Your task to perform on an android device: Show me productivity apps on the Play Store Image 0: 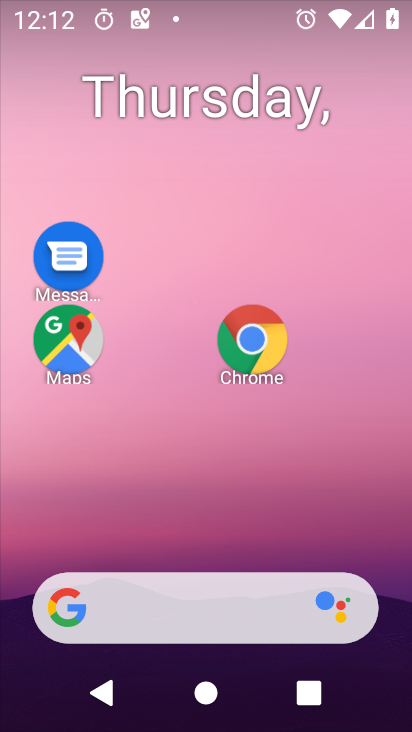
Step 0: drag from (202, 516) to (205, 55)
Your task to perform on an android device: Show me productivity apps on the Play Store Image 1: 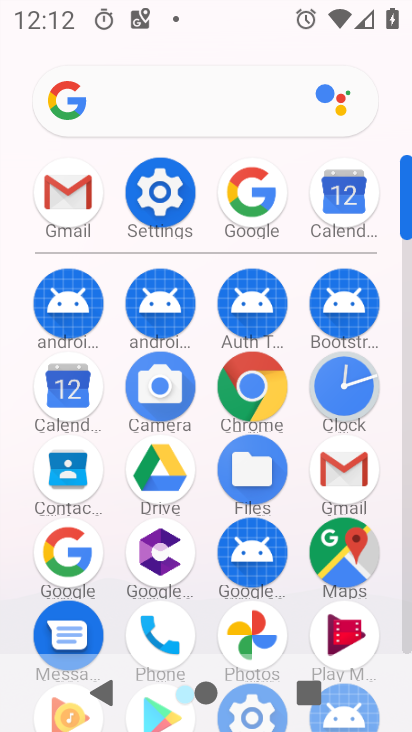
Step 1: drag from (131, 498) to (117, 287)
Your task to perform on an android device: Show me productivity apps on the Play Store Image 2: 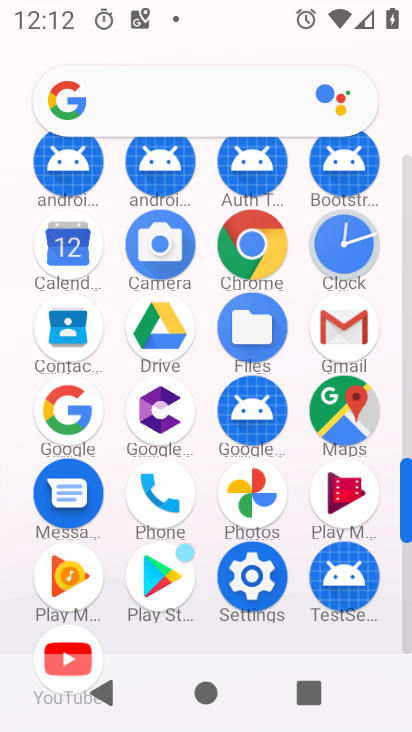
Step 2: click (154, 581)
Your task to perform on an android device: Show me productivity apps on the Play Store Image 3: 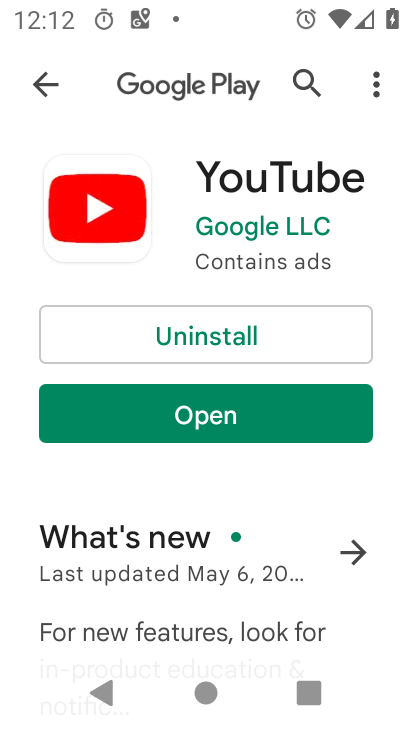
Step 3: press back button
Your task to perform on an android device: Show me productivity apps on the Play Store Image 4: 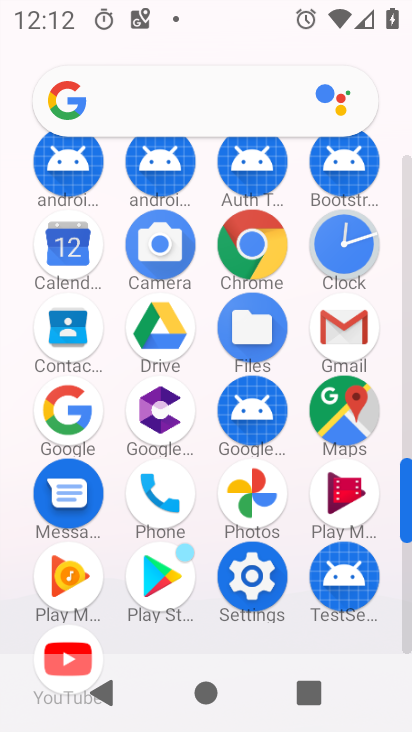
Step 4: click (174, 567)
Your task to perform on an android device: Show me productivity apps on the Play Store Image 5: 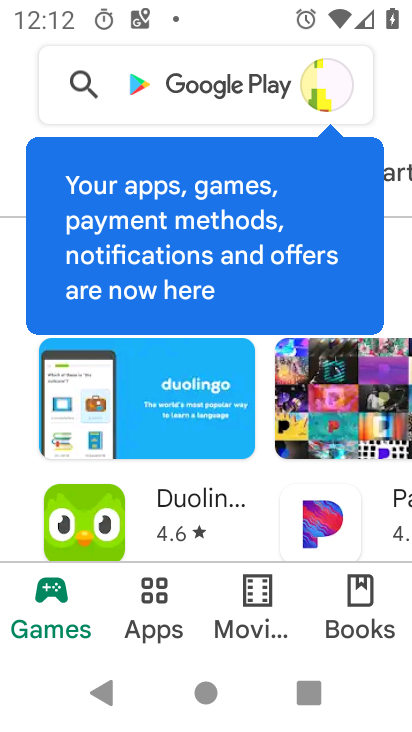
Step 5: click (169, 607)
Your task to perform on an android device: Show me productivity apps on the Play Store Image 6: 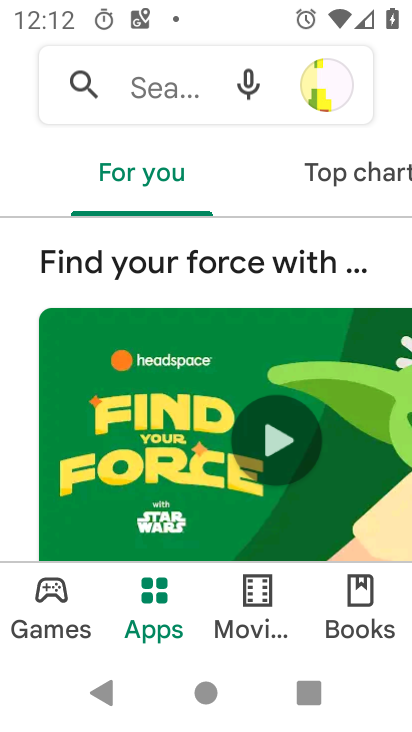
Step 6: drag from (170, 416) to (165, 170)
Your task to perform on an android device: Show me productivity apps on the Play Store Image 7: 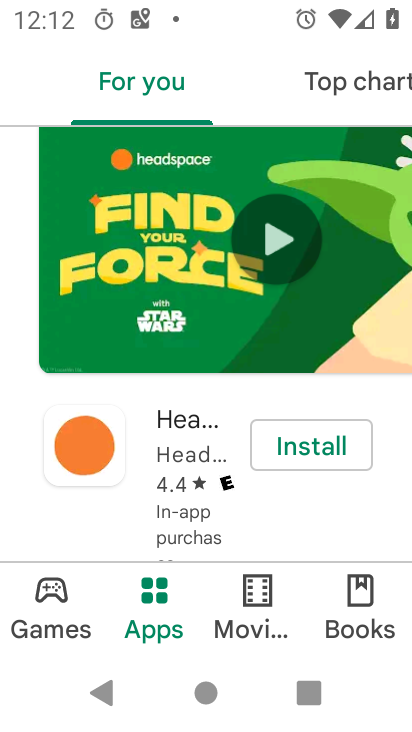
Step 7: drag from (189, 485) to (190, 139)
Your task to perform on an android device: Show me productivity apps on the Play Store Image 8: 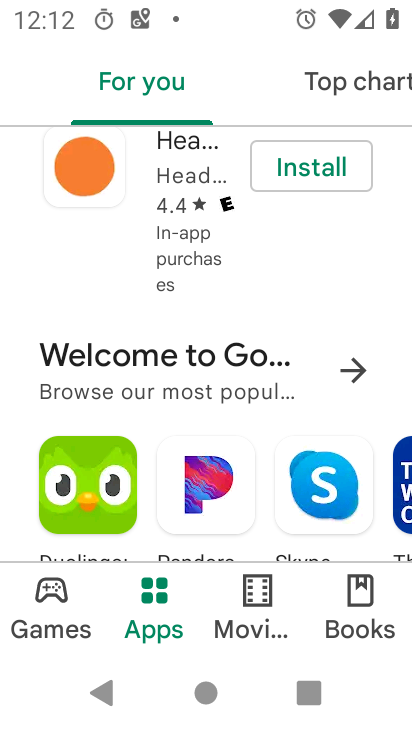
Step 8: drag from (199, 255) to (203, 504)
Your task to perform on an android device: Show me productivity apps on the Play Store Image 9: 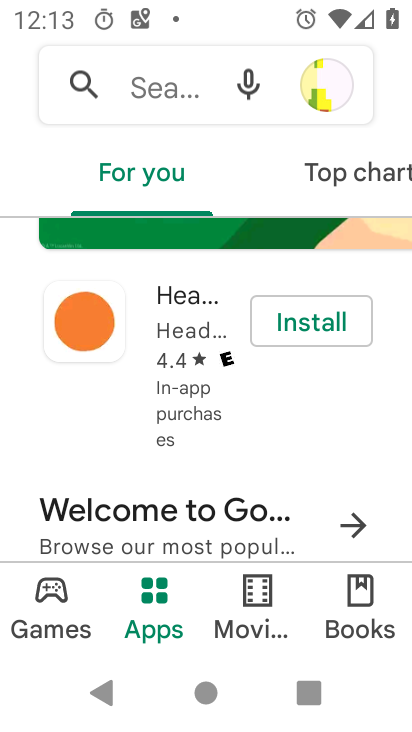
Step 9: drag from (211, 497) to (205, 32)
Your task to perform on an android device: Show me productivity apps on the Play Store Image 10: 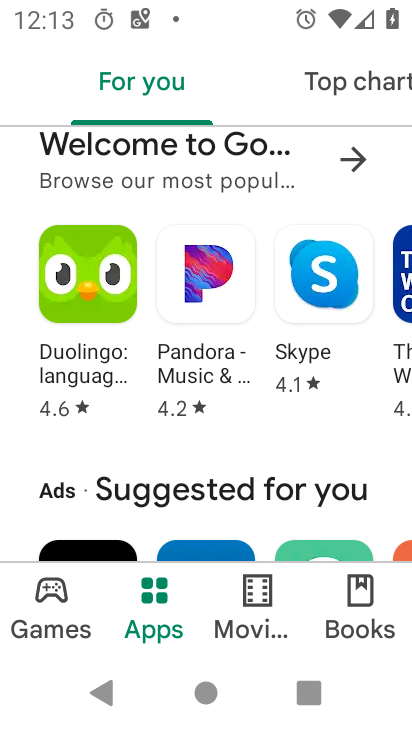
Step 10: drag from (220, 458) to (211, 59)
Your task to perform on an android device: Show me productivity apps on the Play Store Image 11: 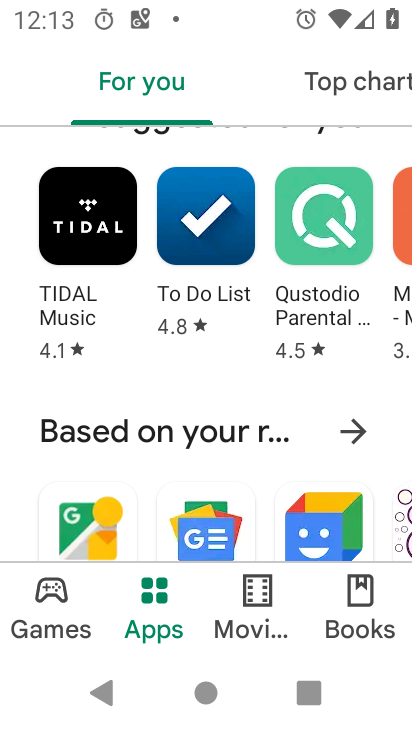
Step 11: drag from (235, 437) to (214, 115)
Your task to perform on an android device: Show me productivity apps on the Play Store Image 12: 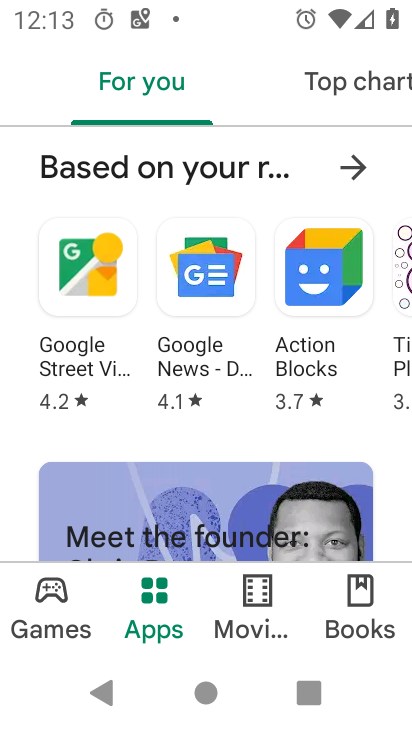
Step 12: drag from (218, 503) to (261, 65)
Your task to perform on an android device: Show me productivity apps on the Play Store Image 13: 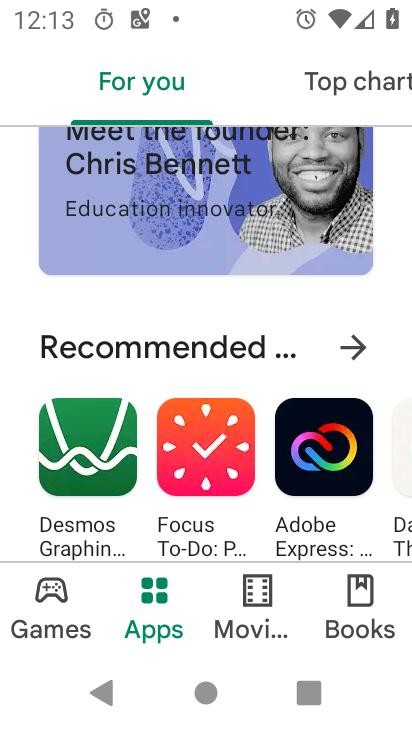
Step 13: drag from (185, 524) to (210, 44)
Your task to perform on an android device: Show me productivity apps on the Play Store Image 14: 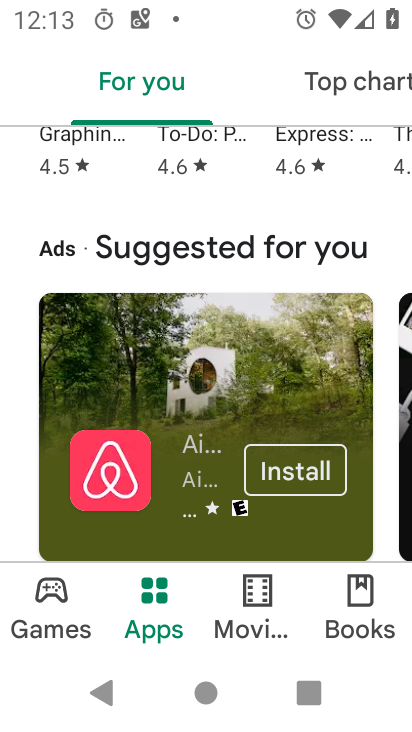
Step 14: drag from (197, 460) to (189, 76)
Your task to perform on an android device: Show me productivity apps on the Play Store Image 15: 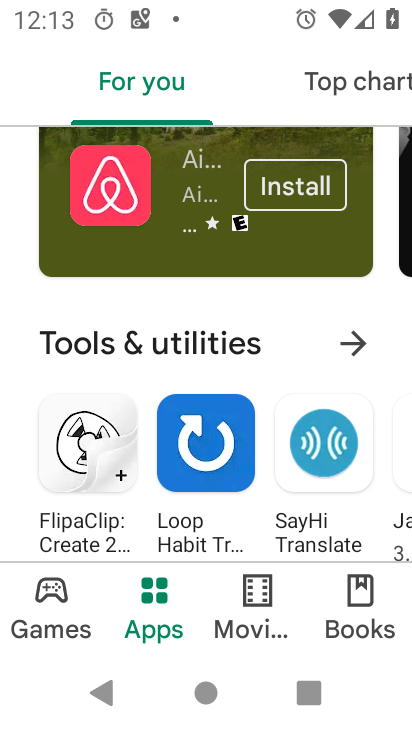
Step 15: drag from (226, 482) to (226, 103)
Your task to perform on an android device: Show me productivity apps on the Play Store Image 16: 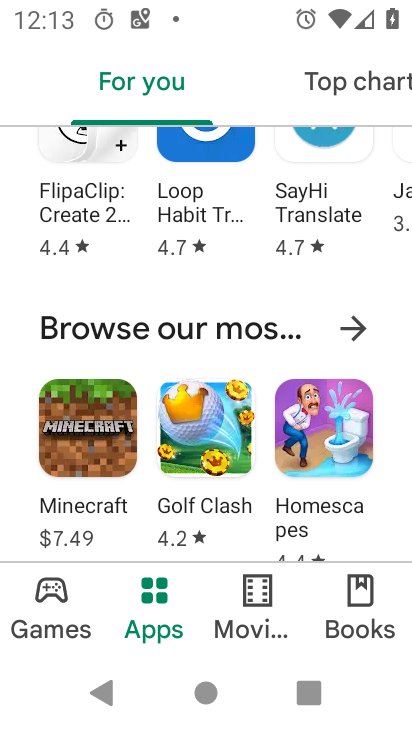
Step 16: drag from (196, 492) to (198, 164)
Your task to perform on an android device: Show me productivity apps on the Play Store Image 17: 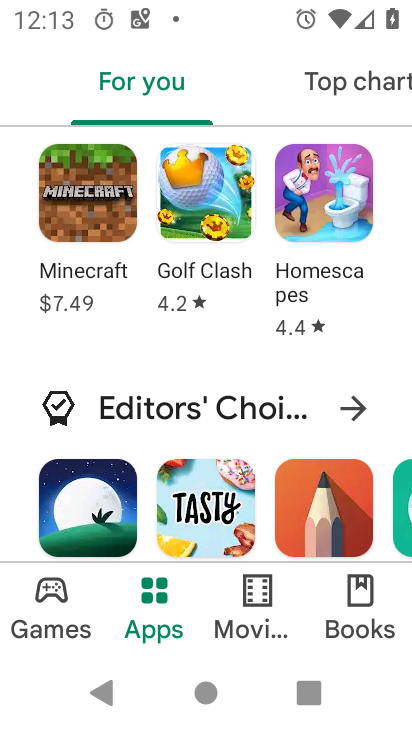
Step 17: drag from (151, 527) to (155, 43)
Your task to perform on an android device: Show me productivity apps on the Play Store Image 18: 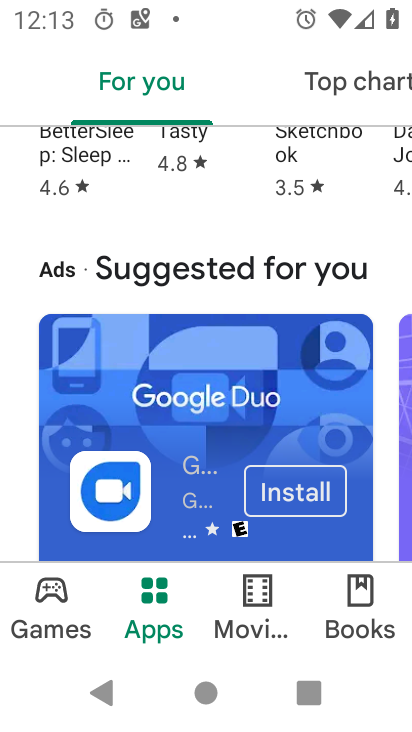
Step 18: drag from (193, 491) to (208, 690)
Your task to perform on an android device: Show me productivity apps on the Play Store Image 19: 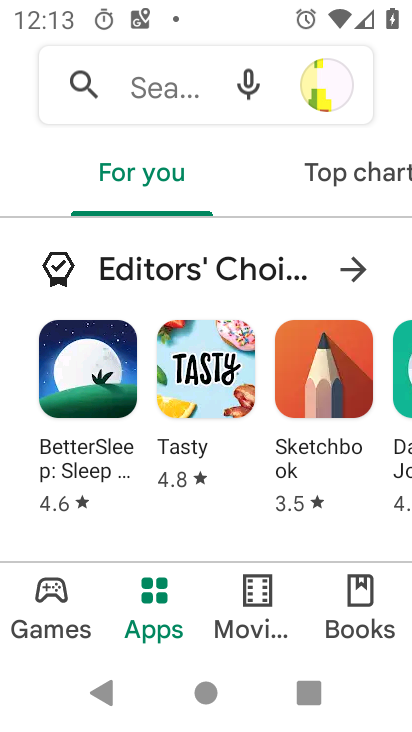
Step 19: drag from (191, 328) to (273, 725)
Your task to perform on an android device: Show me productivity apps on the Play Store Image 20: 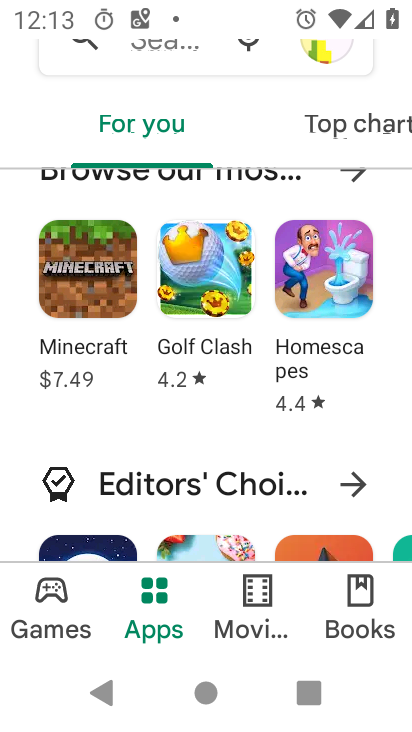
Step 20: drag from (197, 334) to (268, 721)
Your task to perform on an android device: Show me productivity apps on the Play Store Image 21: 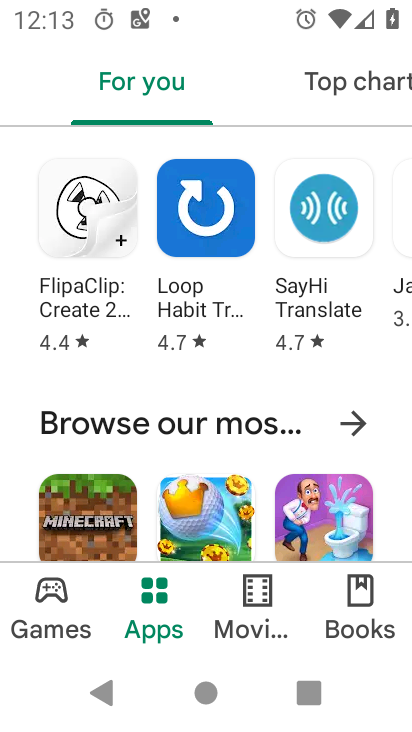
Step 21: drag from (190, 302) to (210, 580)
Your task to perform on an android device: Show me productivity apps on the Play Store Image 22: 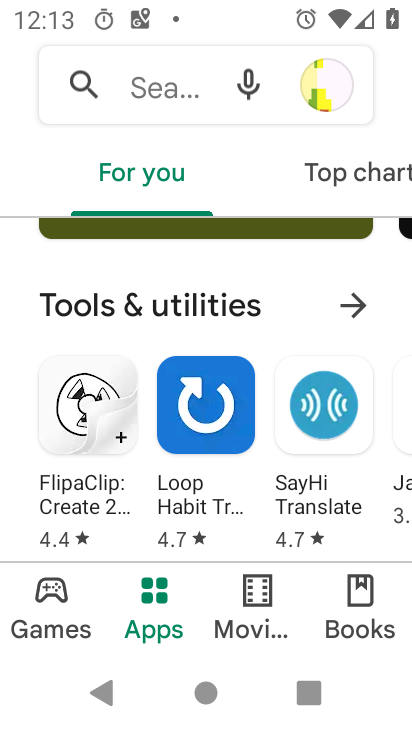
Step 22: drag from (193, 252) to (235, 616)
Your task to perform on an android device: Show me productivity apps on the Play Store Image 23: 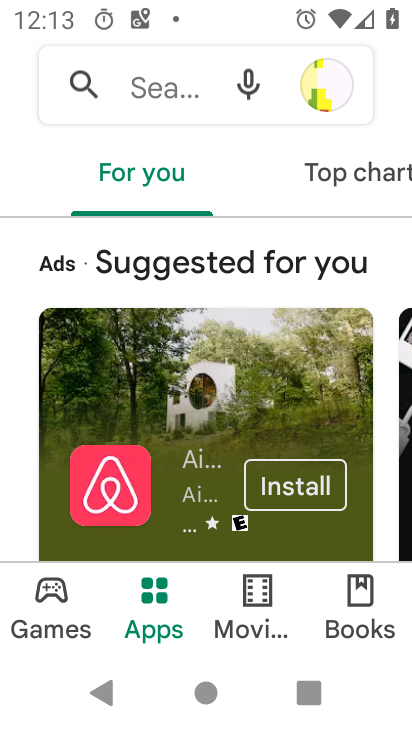
Step 23: drag from (223, 300) to (274, 586)
Your task to perform on an android device: Show me productivity apps on the Play Store Image 24: 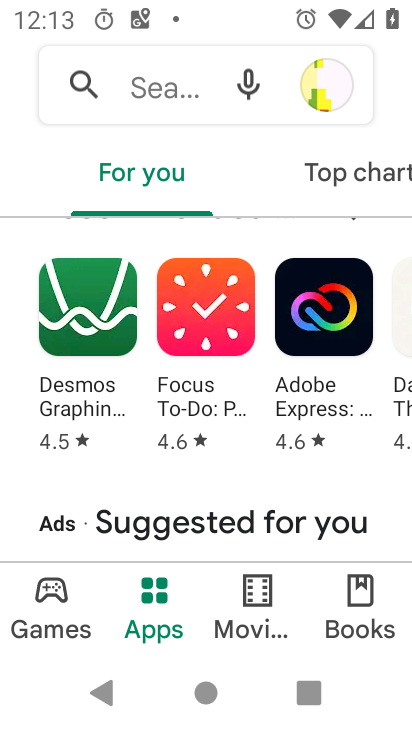
Step 24: drag from (221, 246) to (247, 636)
Your task to perform on an android device: Show me productivity apps on the Play Store Image 25: 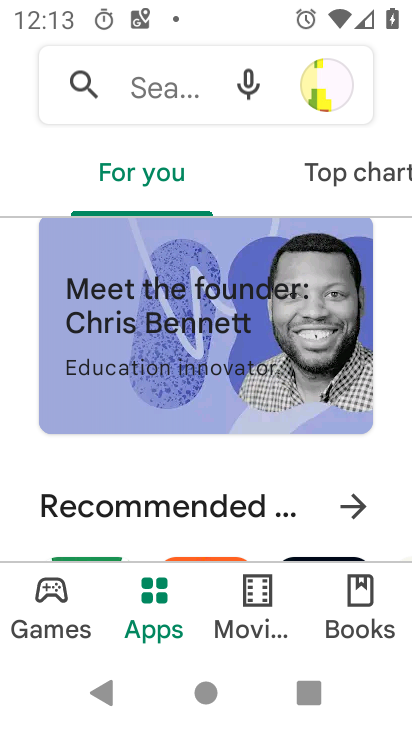
Step 25: drag from (192, 248) to (265, 599)
Your task to perform on an android device: Show me productivity apps on the Play Store Image 26: 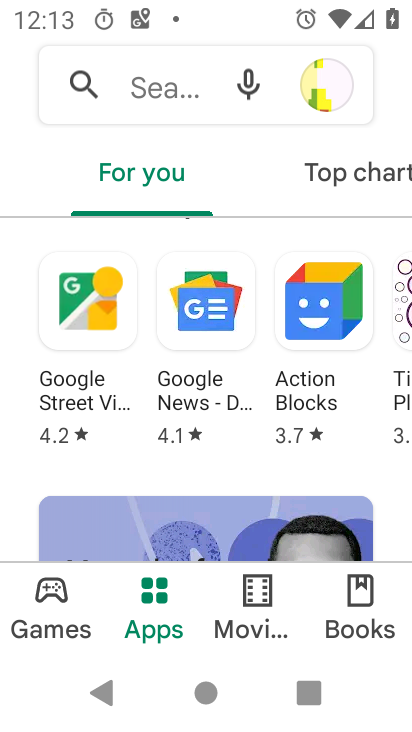
Step 26: drag from (204, 274) to (215, 543)
Your task to perform on an android device: Show me productivity apps on the Play Store Image 27: 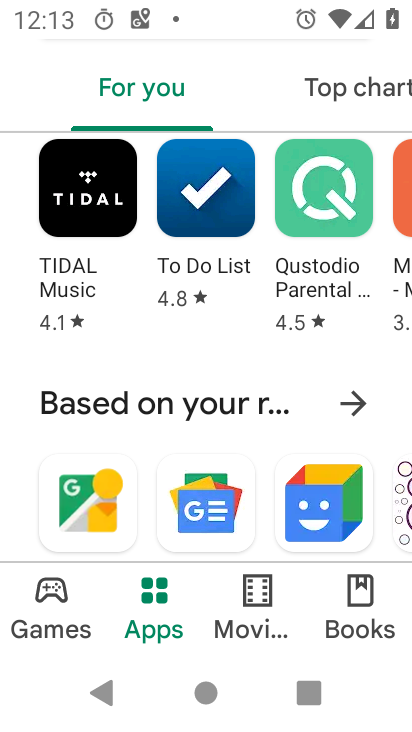
Step 27: drag from (243, 291) to (280, 533)
Your task to perform on an android device: Show me productivity apps on the Play Store Image 28: 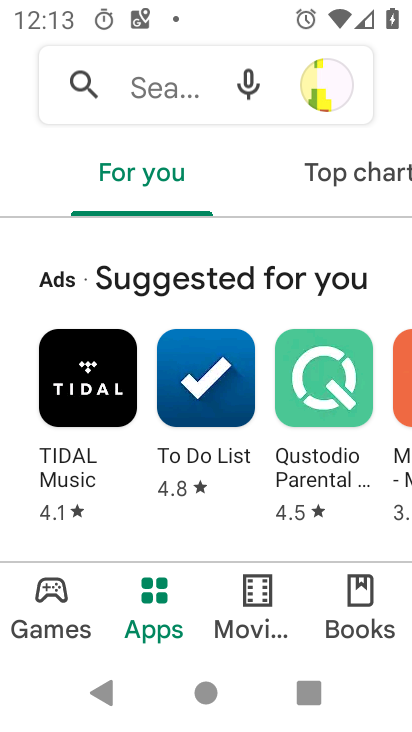
Step 28: drag from (222, 276) to (300, 730)
Your task to perform on an android device: Show me productivity apps on the Play Store Image 29: 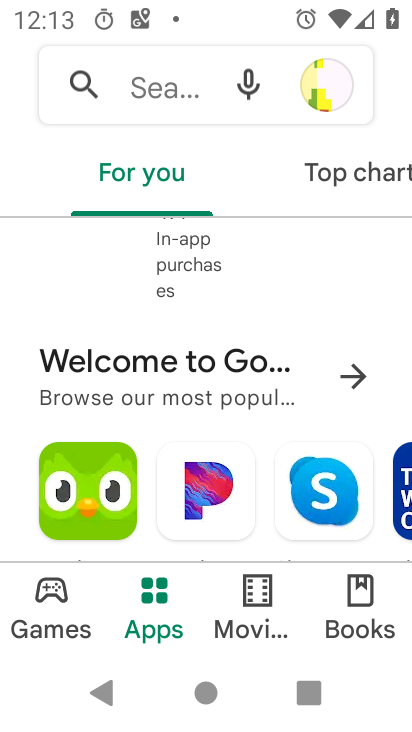
Step 29: drag from (229, 318) to (245, 595)
Your task to perform on an android device: Show me productivity apps on the Play Store Image 30: 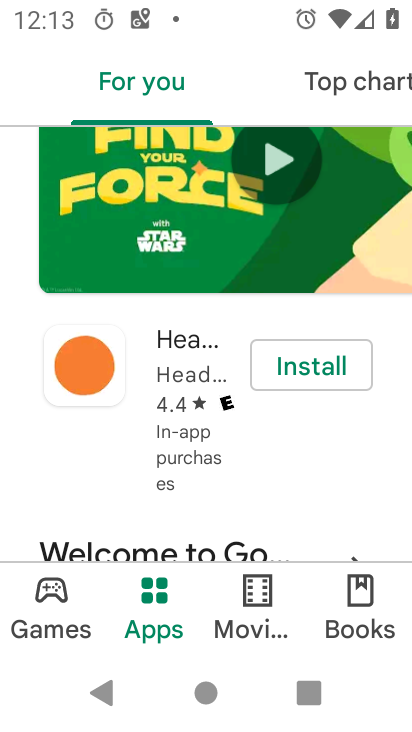
Step 30: drag from (187, 294) to (259, 570)
Your task to perform on an android device: Show me productivity apps on the Play Store Image 31: 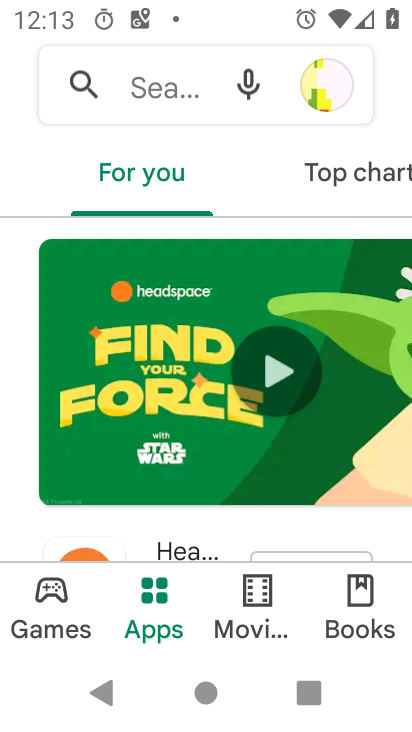
Step 31: drag from (169, 267) to (219, 683)
Your task to perform on an android device: Show me productivity apps on the Play Store Image 32: 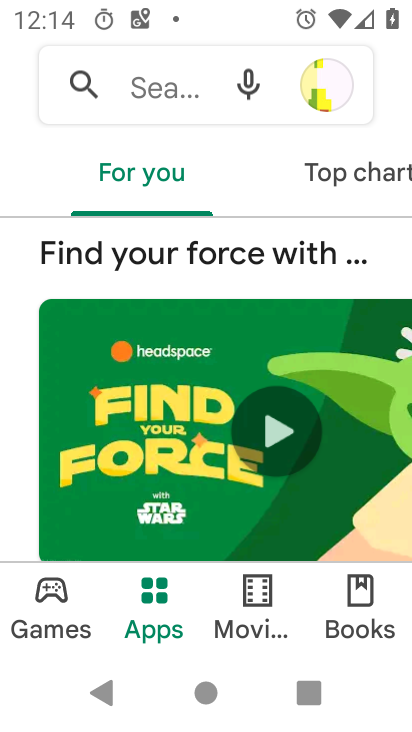
Step 32: drag from (234, 464) to (225, 126)
Your task to perform on an android device: Show me productivity apps on the Play Store Image 33: 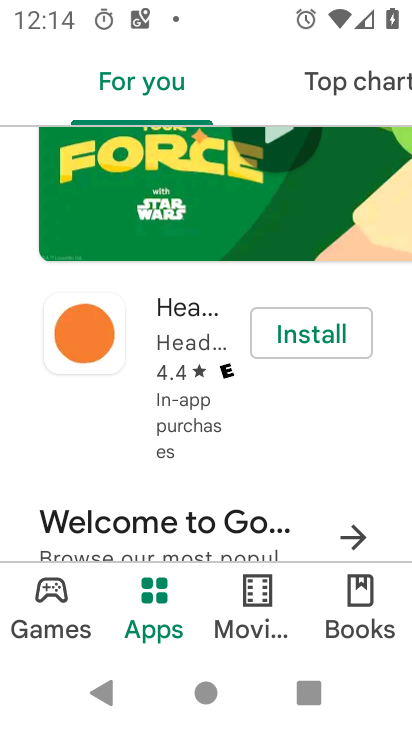
Step 33: drag from (242, 469) to (271, 728)
Your task to perform on an android device: Show me productivity apps on the Play Store Image 34: 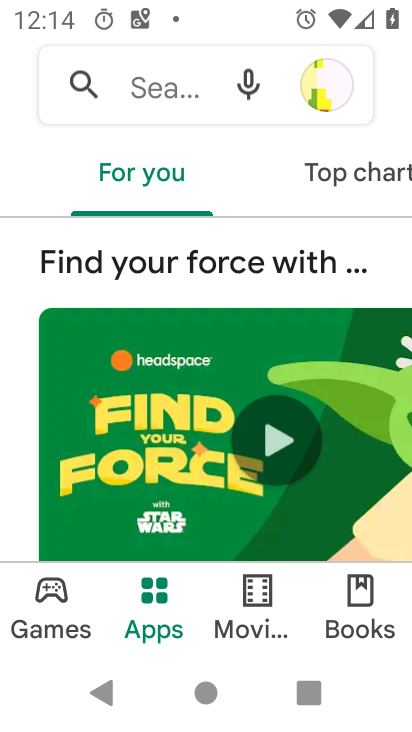
Step 34: drag from (372, 196) to (16, 211)
Your task to perform on an android device: Show me productivity apps on the Play Store Image 35: 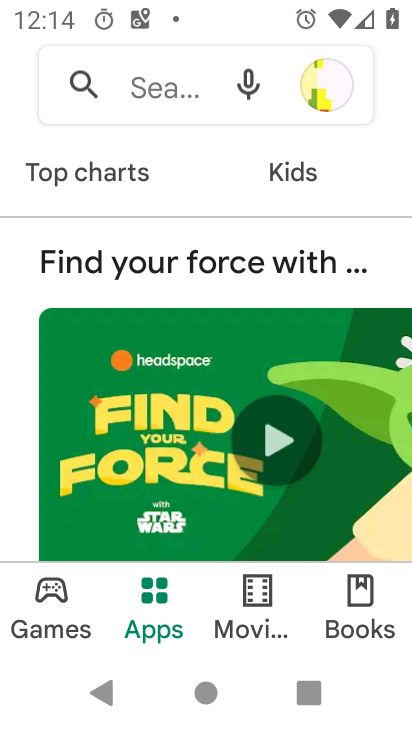
Step 35: drag from (284, 205) to (8, 231)
Your task to perform on an android device: Show me productivity apps on the Play Store Image 36: 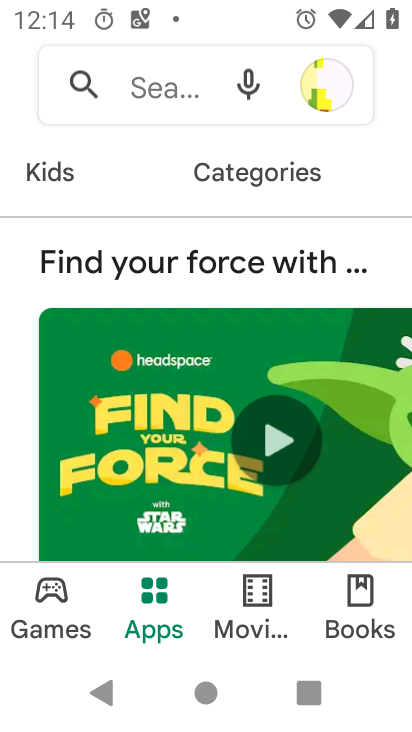
Step 36: click (272, 171)
Your task to perform on an android device: Show me productivity apps on the Play Store Image 37: 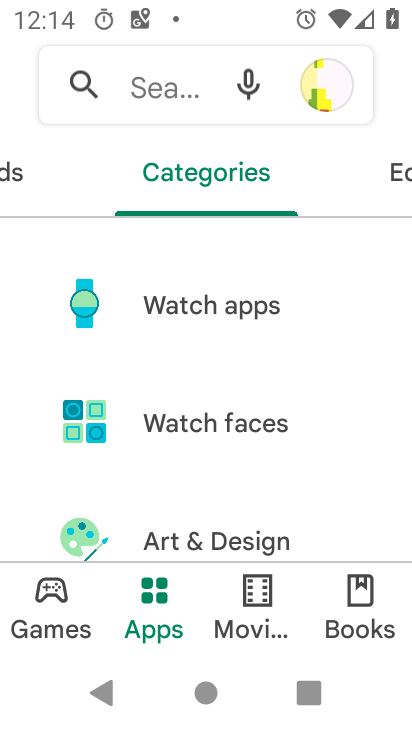
Step 37: drag from (270, 520) to (240, 74)
Your task to perform on an android device: Show me productivity apps on the Play Store Image 38: 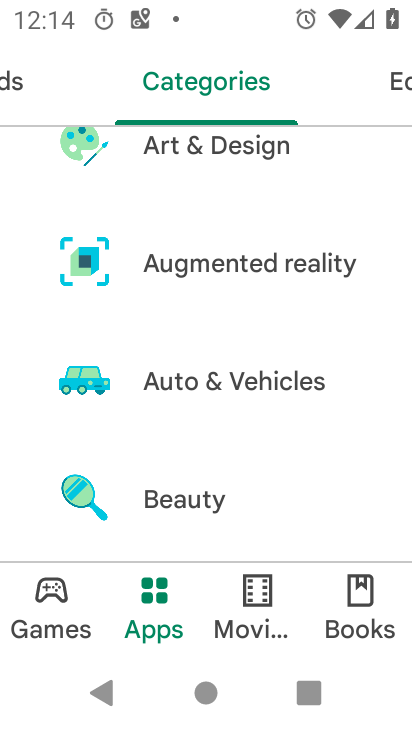
Step 38: drag from (269, 491) to (266, 47)
Your task to perform on an android device: Show me productivity apps on the Play Store Image 39: 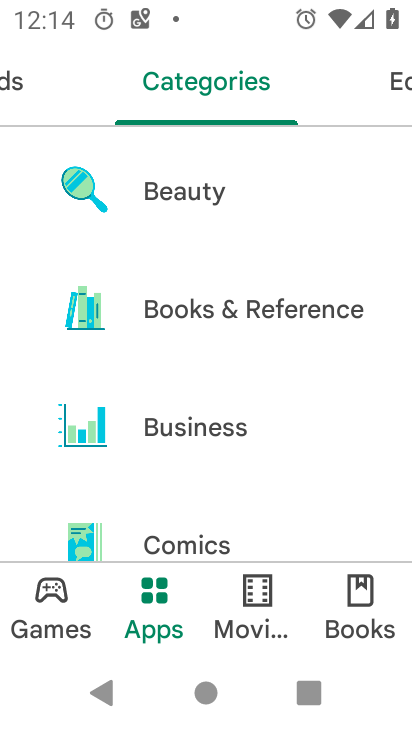
Step 39: drag from (223, 516) to (185, 61)
Your task to perform on an android device: Show me productivity apps on the Play Store Image 40: 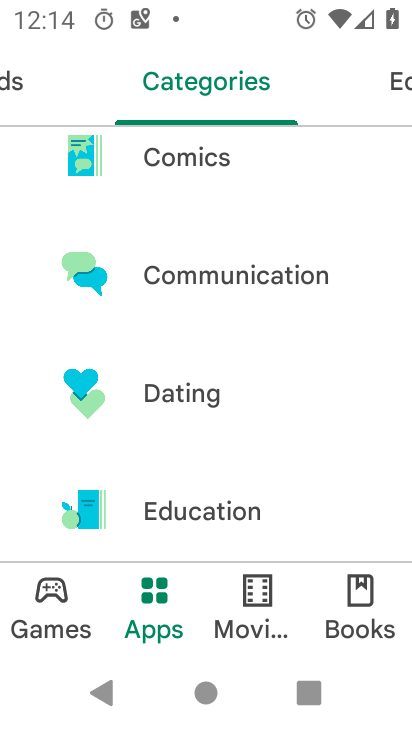
Step 40: drag from (256, 513) to (202, 69)
Your task to perform on an android device: Show me productivity apps on the Play Store Image 41: 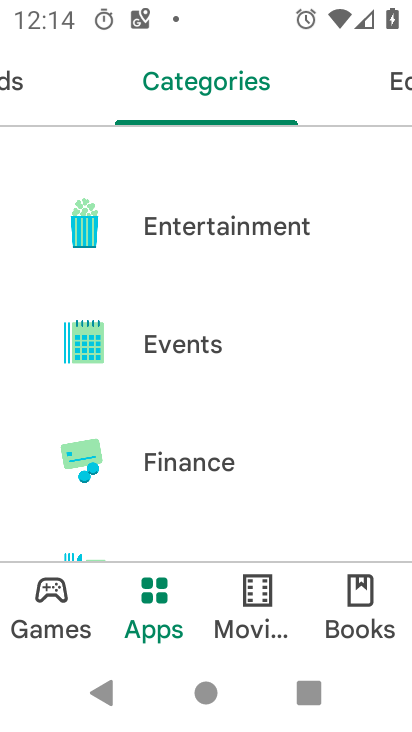
Step 41: drag from (245, 518) to (201, 115)
Your task to perform on an android device: Show me productivity apps on the Play Store Image 42: 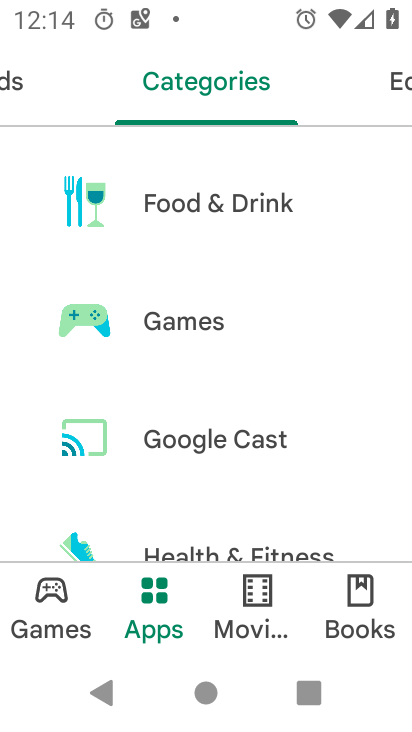
Step 42: drag from (206, 520) to (193, 85)
Your task to perform on an android device: Show me productivity apps on the Play Store Image 43: 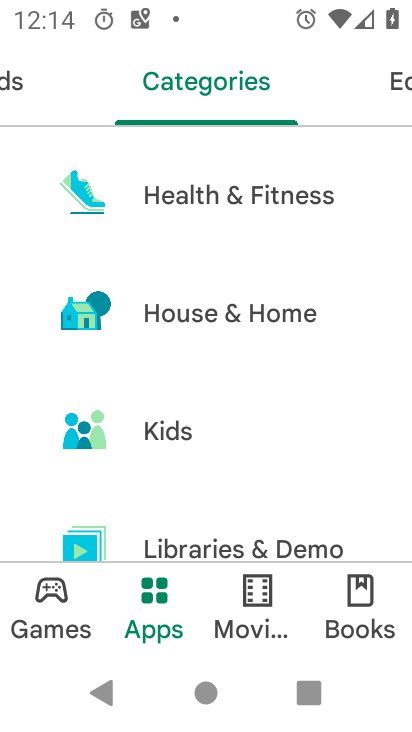
Step 43: drag from (236, 517) to (215, 68)
Your task to perform on an android device: Show me productivity apps on the Play Store Image 44: 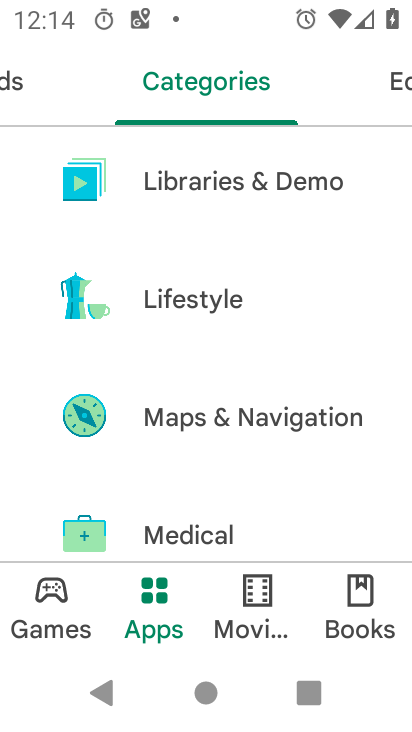
Step 44: drag from (273, 527) to (290, 100)
Your task to perform on an android device: Show me productivity apps on the Play Store Image 45: 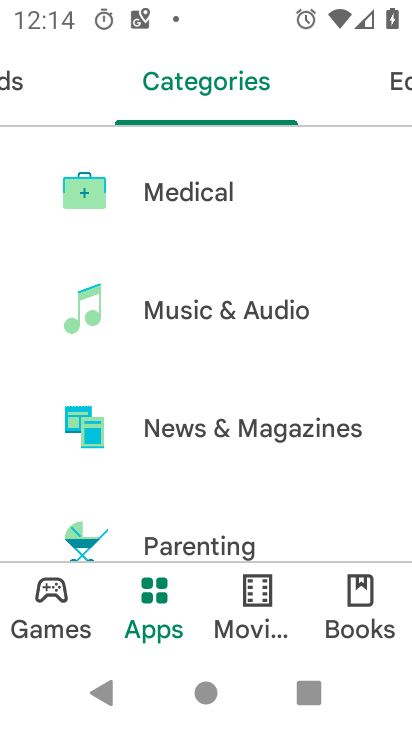
Step 45: drag from (284, 527) to (290, 126)
Your task to perform on an android device: Show me productivity apps on the Play Store Image 46: 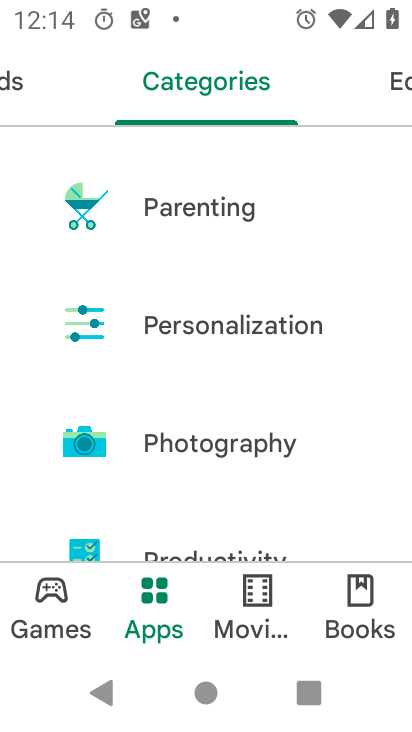
Step 46: drag from (259, 497) to (255, 271)
Your task to perform on an android device: Show me productivity apps on the Play Store Image 47: 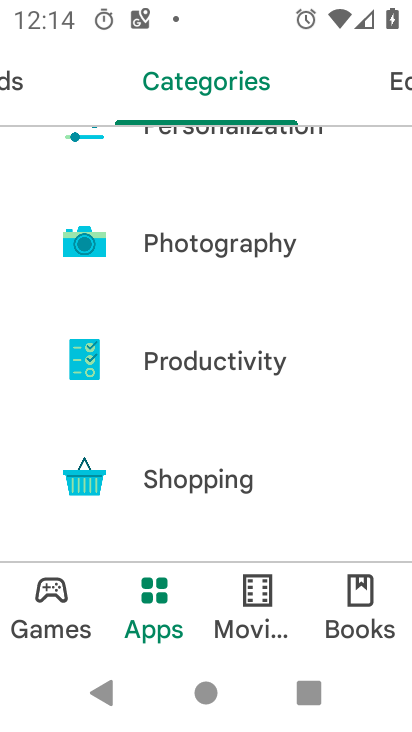
Step 47: click (203, 370)
Your task to perform on an android device: Show me productivity apps on the Play Store Image 48: 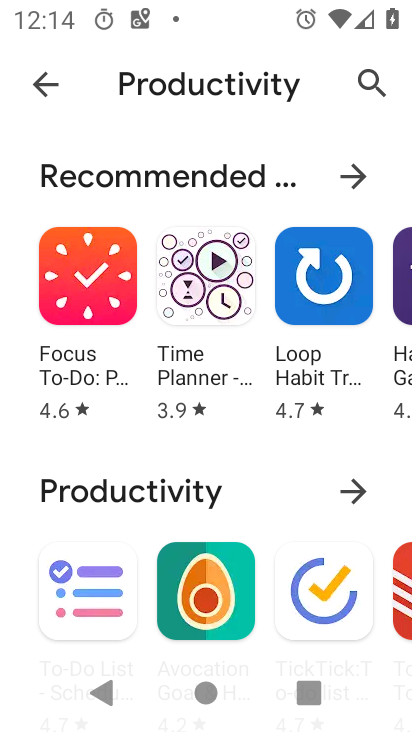
Step 48: click (188, 497)
Your task to perform on an android device: Show me productivity apps on the Play Store Image 49: 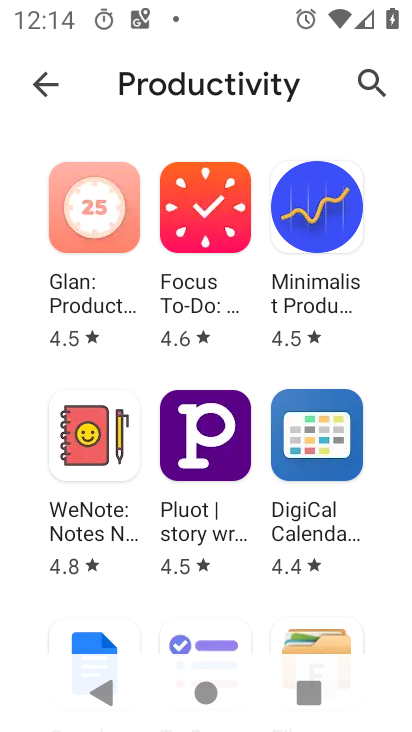
Step 49: task complete